Your task to perform on an android device: allow notifications from all sites in the chrome app Image 0: 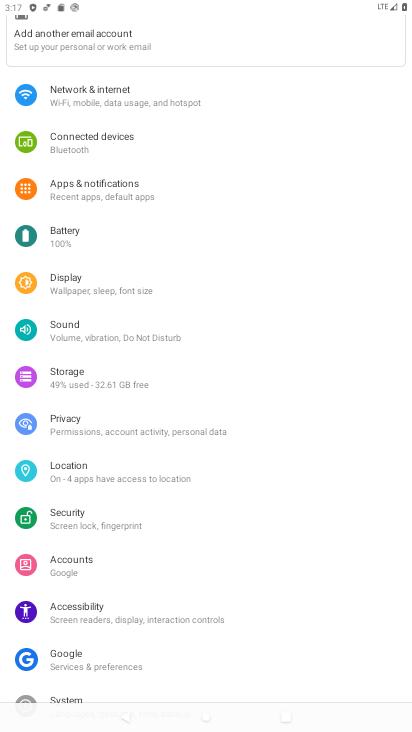
Step 0: press home button
Your task to perform on an android device: allow notifications from all sites in the chrome app Image 1: 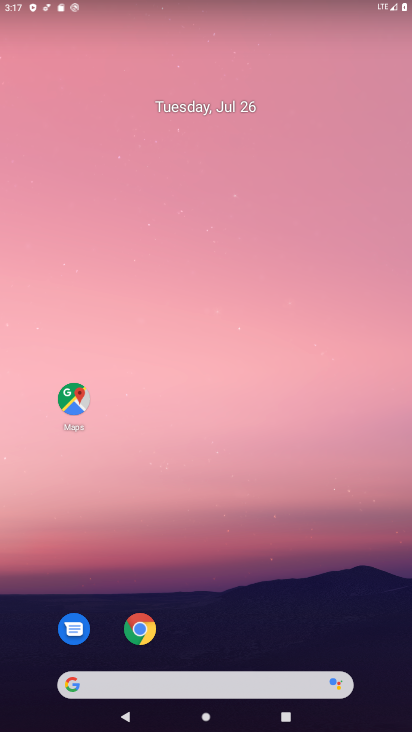
Step 1: click (142, 632)
Your task to perform on an android device: allow notifications from all sites in the chrome app Image 2: 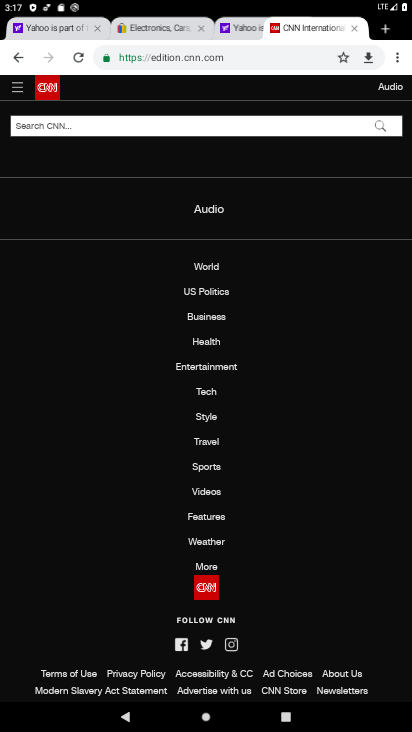
Step 2: click (397, 58)
Your task to perform on an android device: allow notifications from all sites in the chrome app Image 3: 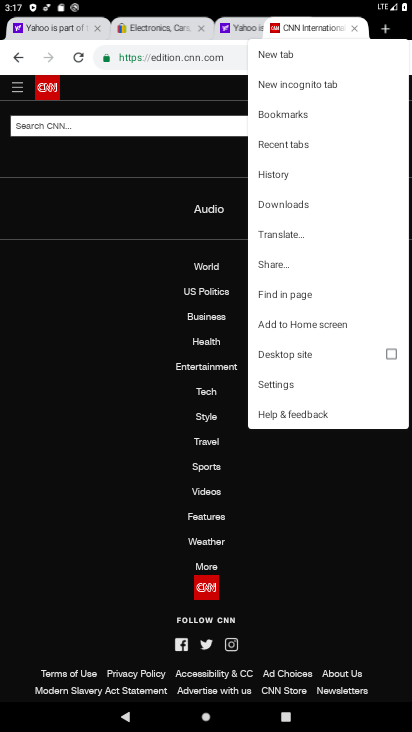
Step 3: click (279, 378)
Your task to perform on an android device: allow notifications from all sites in the chrome app Image 4: 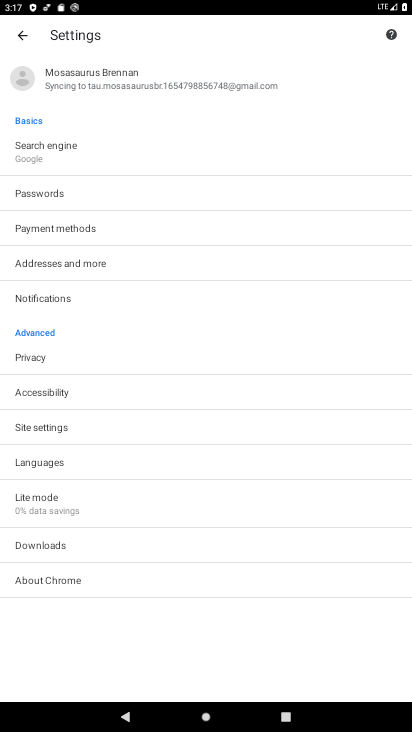
Step 4: click (45, 429)
Your task to perform on an android device: allow notifications from all sites in the chrome app Image 5: 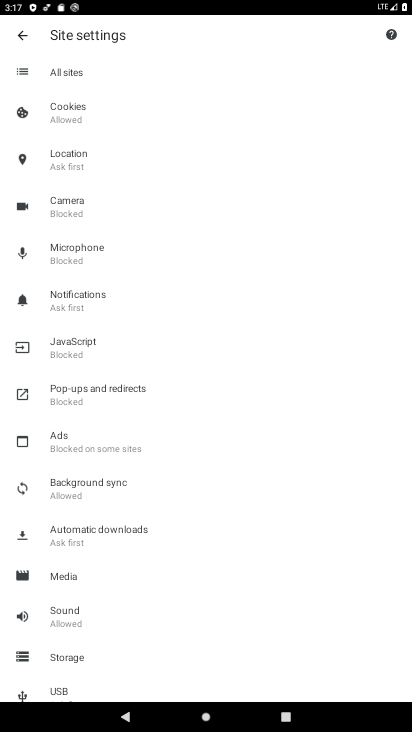
Step 5: click (69, 298)
Your task to perform on an android device: allow notifications from all sites in the chrome app Image 6: 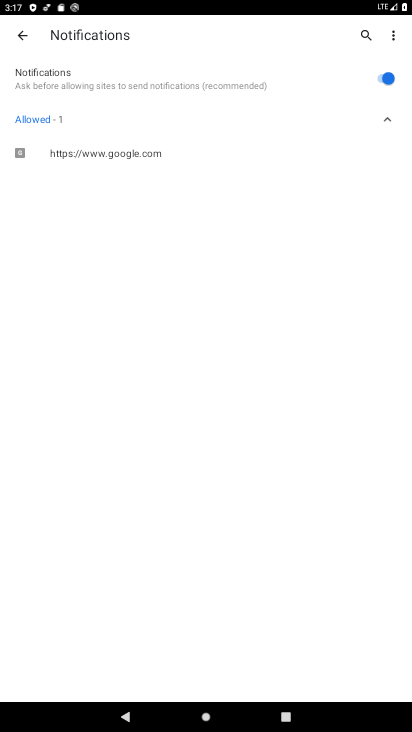
Step 6: task complete